Your task to perform on an android device: open the mobile data screen to see how much data has been used Image 0: 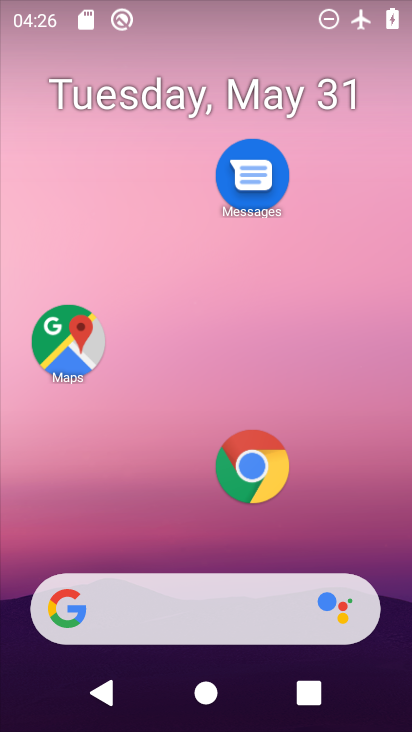
Step 0: drag from (189, 517) to (226, 112)
Your task to perform on an android device: open the mobile data screen to see how much data has been used Image 1: 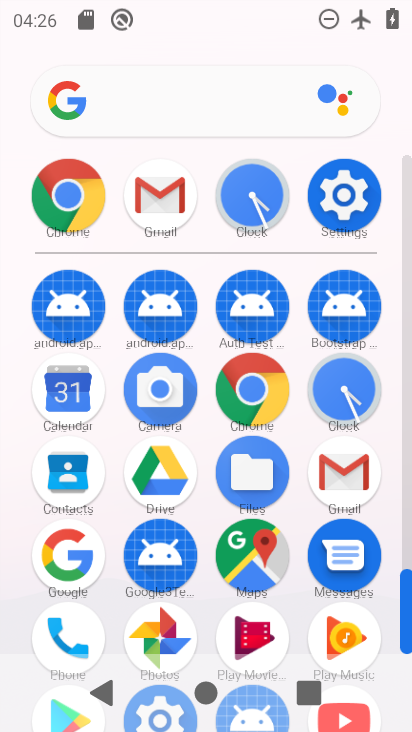
Step 1: click (340, 191)
Your task to perform on an android device: open the mobile data screen to see how much data has been used Image 2: 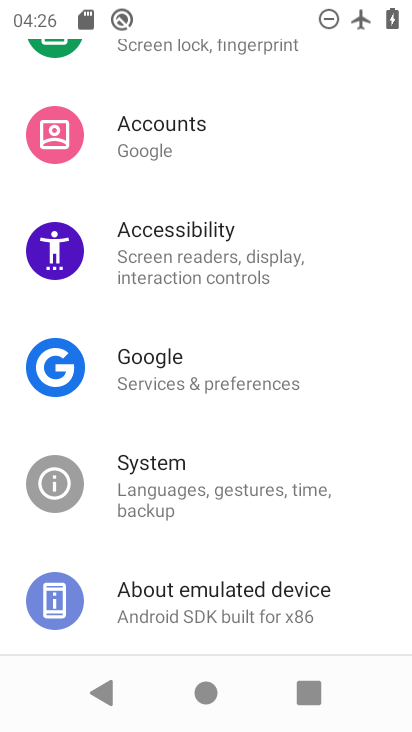
Step 2: drag from (208, 137) to (176, 710)
Your task to perform on an android device: open the mobile data screen to see how much data has been used Image 3: 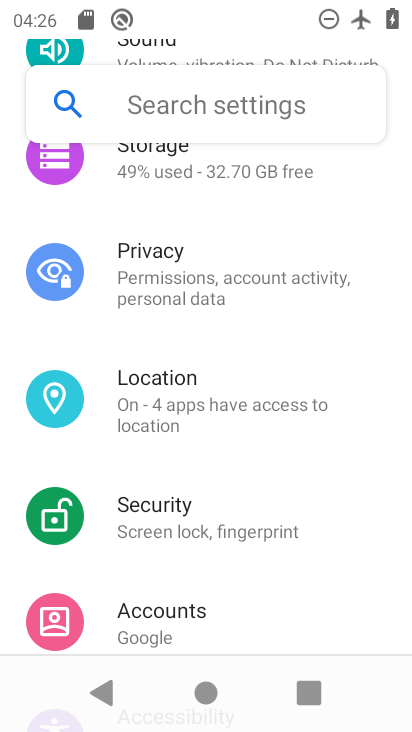
Step 3: drag from (207, 221) to (169, 716)
Your task to perform on an android device: open the mobile data screen to see how much data has been used Image 4: 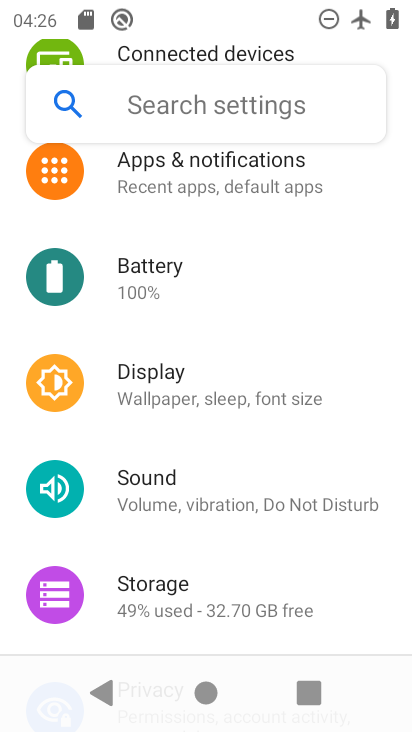
Step 4: drag from (226, 216) to (199, 649)
Your task to perform on an android device: open the mobile data screen to see how much data has been used Image 5: 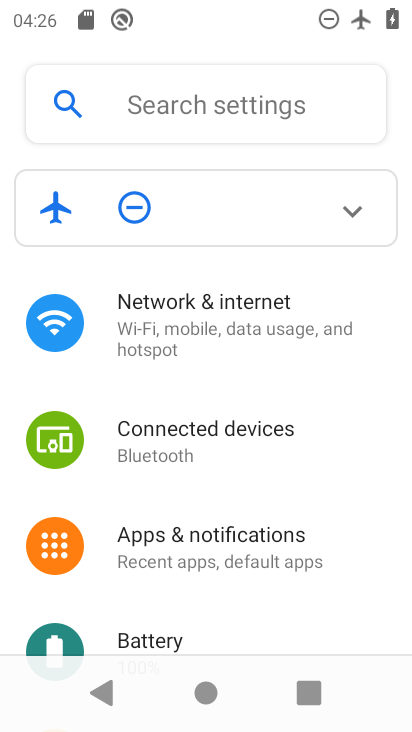
Step 5: click (167, 328)
Your task to perform on an android device: open the mobile data screen to see how much data has been used Image 6: 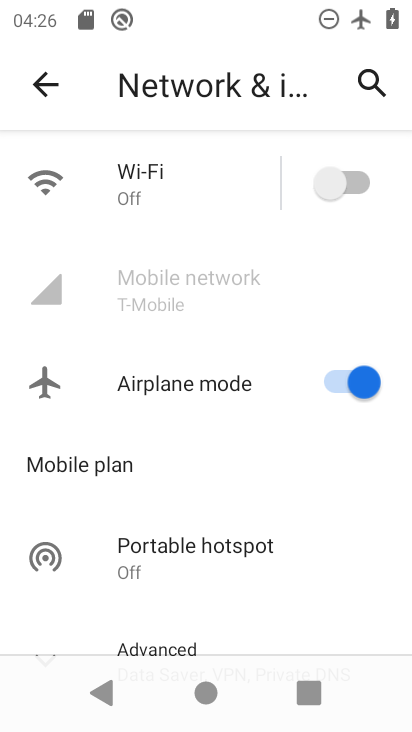
Step 6: click (356, 380)
Your task to perform on an android device: open the mobile data screen to see how much data has been used Image 7: 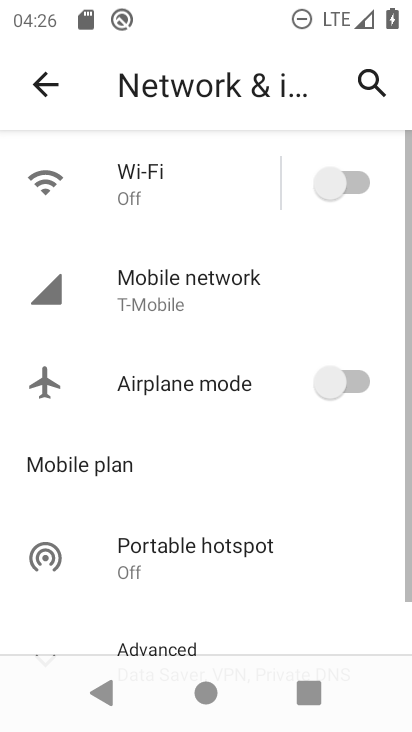
Step 7: click (158, 283)
Your task to perform on an android device: open the mobile data screen to see how much data has been used Image 8: 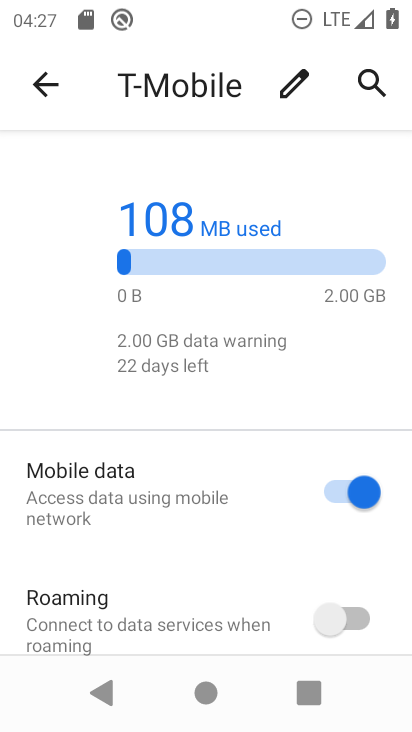
Step 8: drag from (154, 620) to (244, 94)
Your task to perform on an android device: open the mobile data screen to see how much data has been used Image 9: 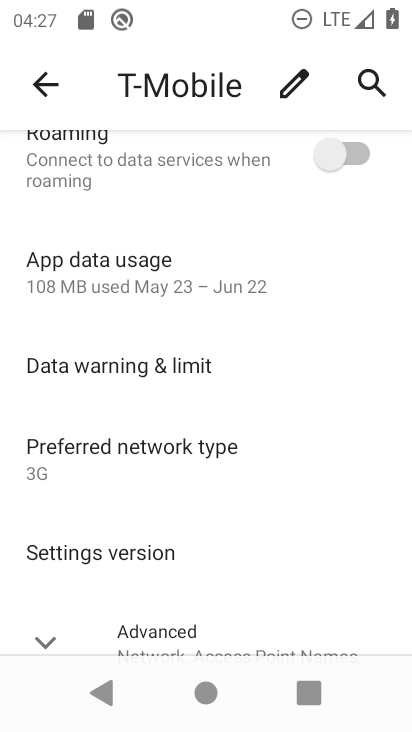
Step 9: click (82, 277)
Your task to perform on an android device: open the mobile data screen to see how much data has been used Image 10: 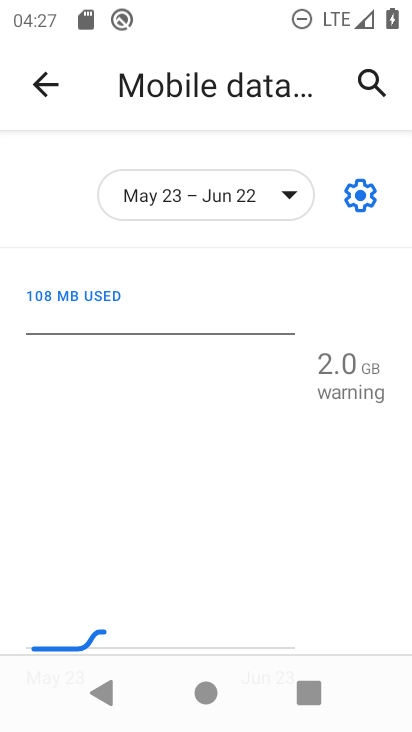
Step 10: task complete